Your task to perform on an android device: What's on my calendar today? Image 0: 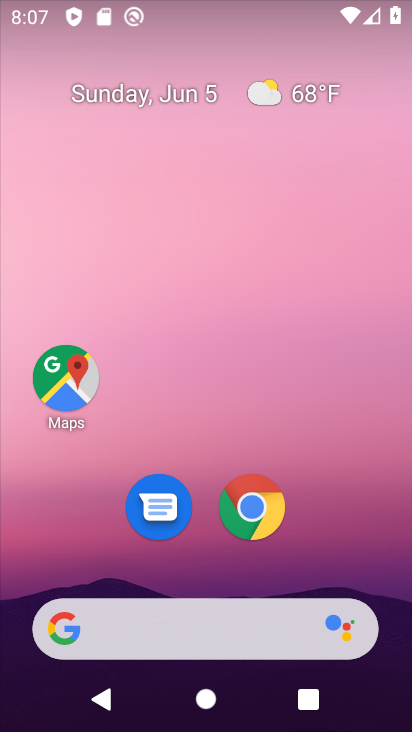
Step 0: drag from (208, 582) to (327, 1)
Your task to perform on an android device: What's on my calendar today? Image 1: 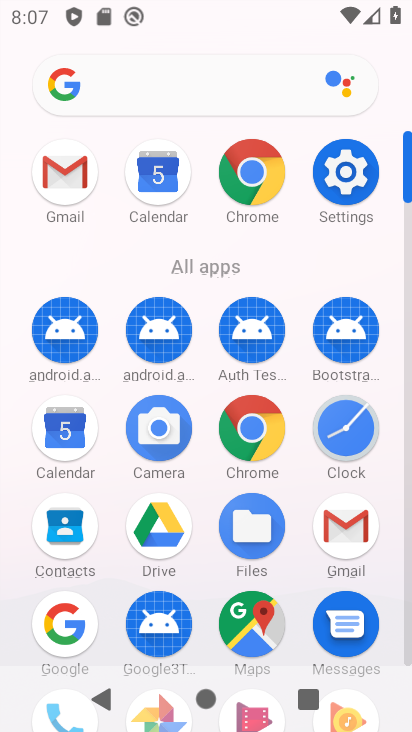
Step 1: click (66, 439)
Your task to perform on an android device: What's on my calendar today? Image 2: 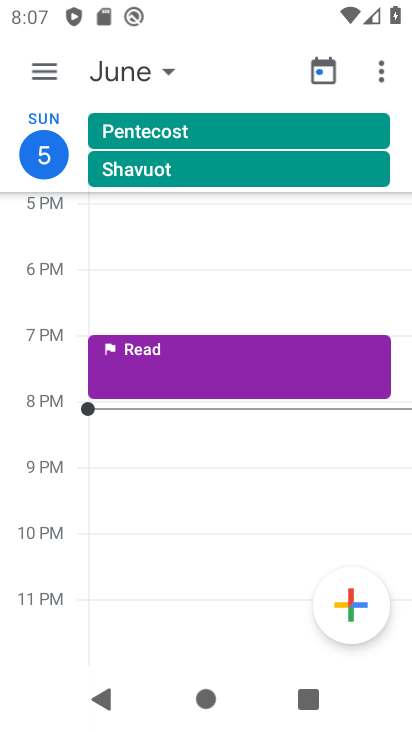
Step 2: task complete